Your task to perform on an android device: turn off notifications settings in the gmail app Image 0: 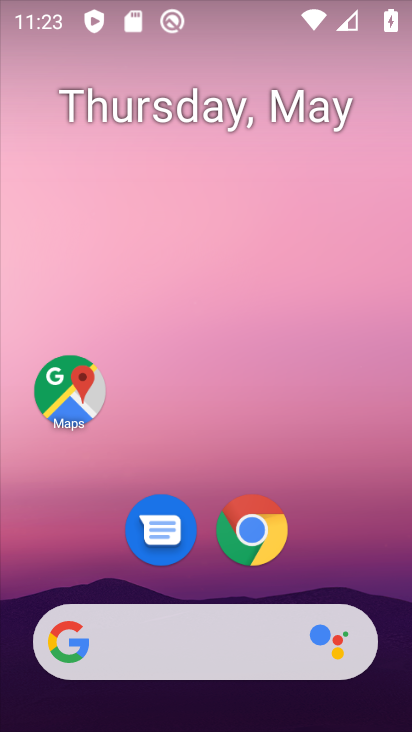
Step 0: drag from (214, 569) to (240, 42)
Your task to perform on an android device: turn off notifications settings in the gmail app Image 1: 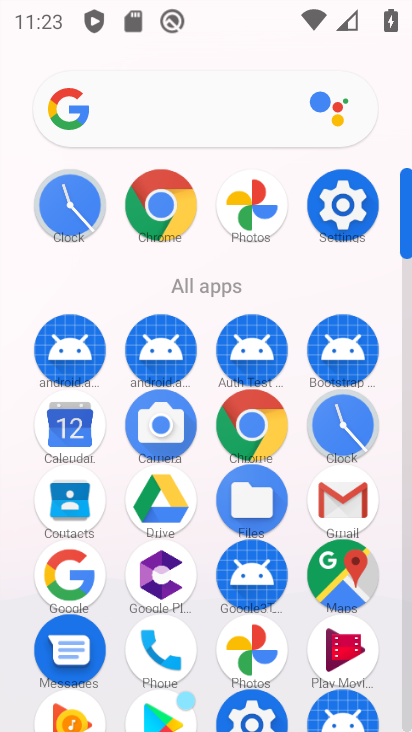
Step 1: click (323, 500)
Your task to perform on an android device: turn off notifications settings in the gmail app Image 2: 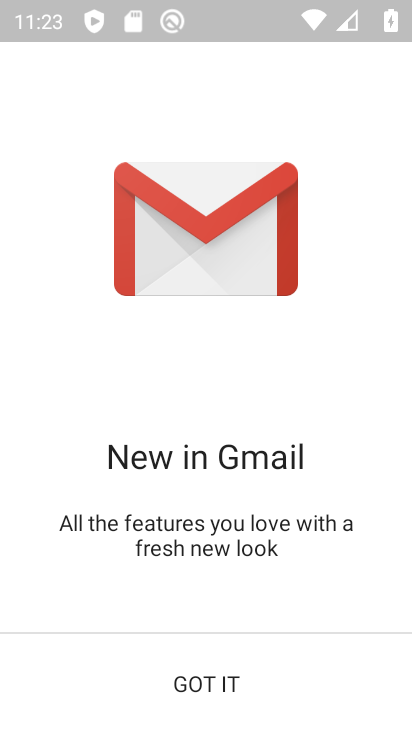
Step 2: click (152, 681)
Your task to perform on an android device: turn off notifications settings in the gmail app Image 3: 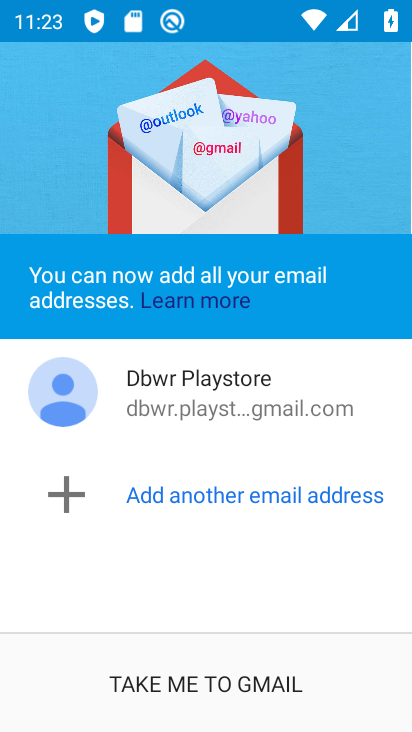
Step 3: click (148, 678)
Your task to perform on an android device: turn off notifications settings in the gmail app Image 4: 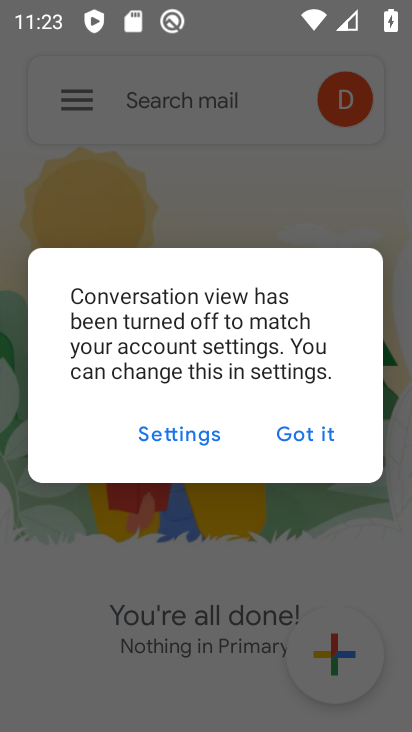
Step 4: click (279, 435)
Your task to perform on an android device: turn off notifications settings in the gmail app Image 5: 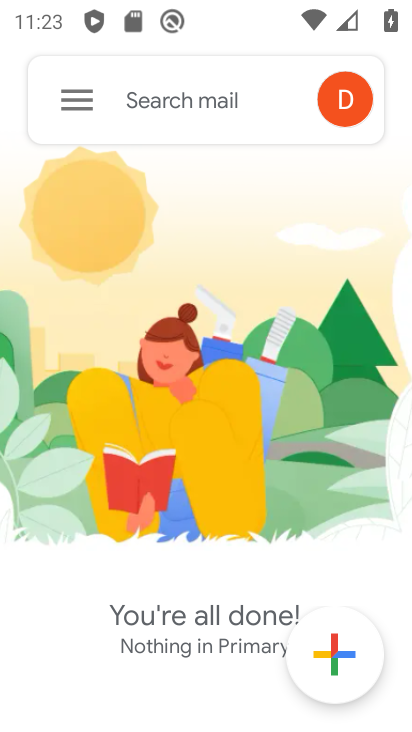
Step 5: click (65, 85)
Your task to perform on an android device: turn off notifications settings in the gmail app Image 6: 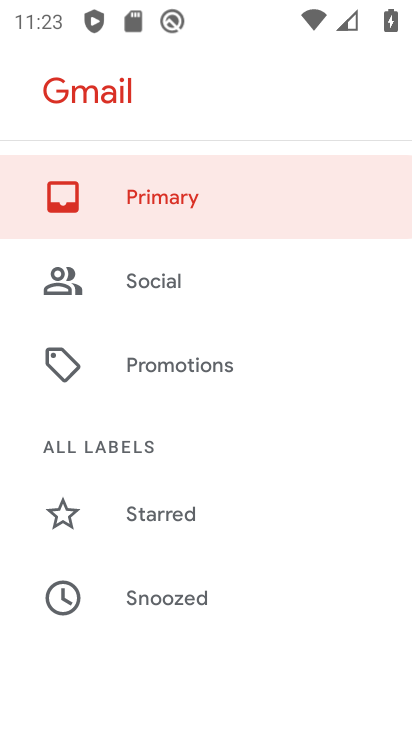
Step 6: drag from (185, 592) to (254, 154)
Your task to perform on an android device: turn off notifications settings in the gmail app Image 7: 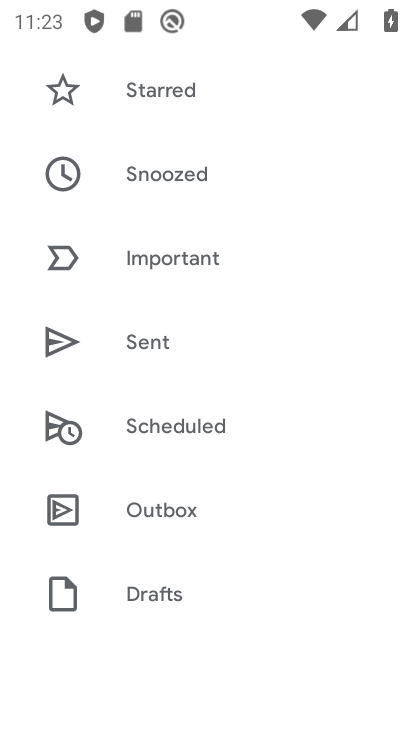
Step 7: drag from (165, 545) to (211, 140)
Your task to perform on an android device: turn off notifications settings in the gmail app Image 8: 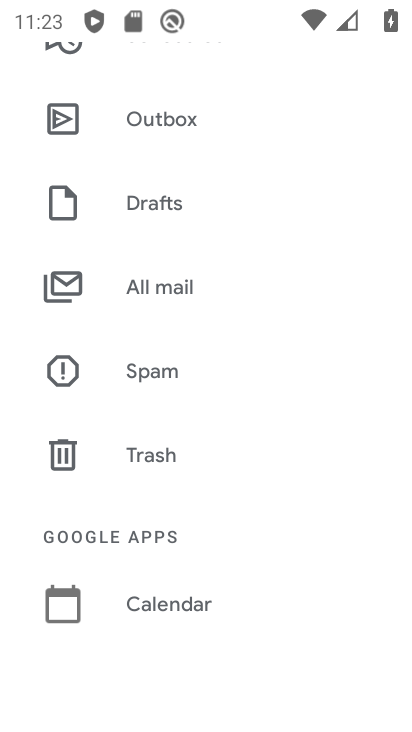
Step 8: drag from (210, 536) to (220, 224)
Your task to perform on an android device: turn off notifications settings in the gmail app Image 9: 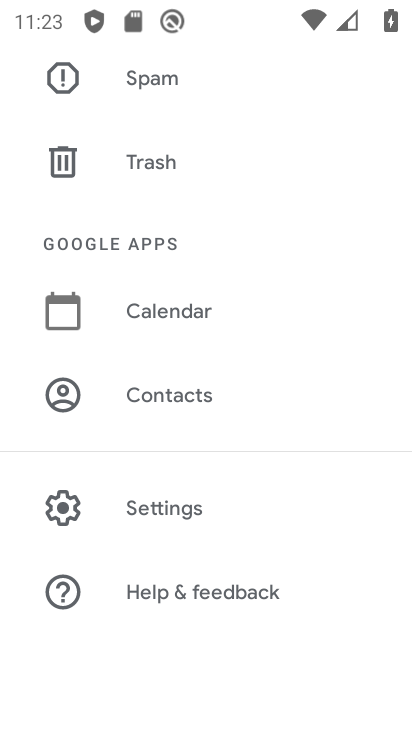
Step 9: click (191, 496)
Your task to perform on an android device: turn off notifications settings in the gmail app Image 10: 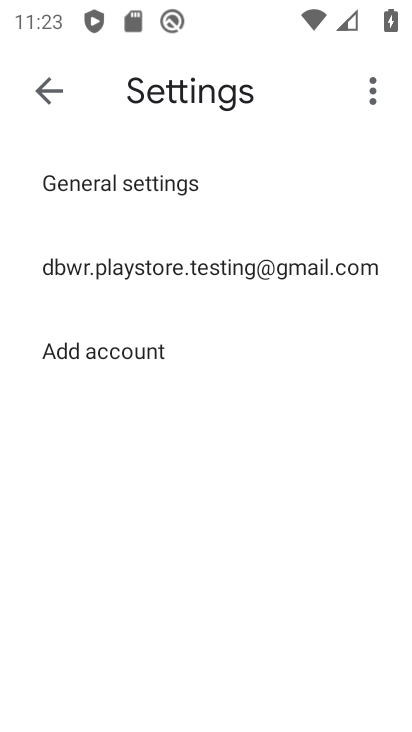
Step 10: click (242, 275)
Your task to perform on an android device: turn off notifications settings in the gmail app Image 11: 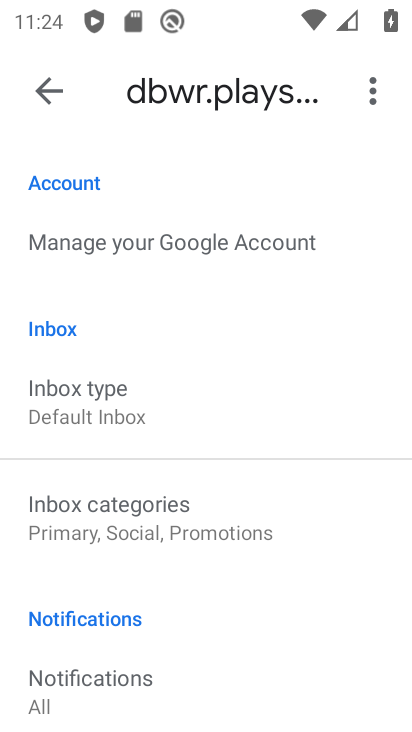
Step 11: drag from (112, 638) to (181, 100)
Your task to perform on an android device: turn off notifications settings in the gmail app Image 12: 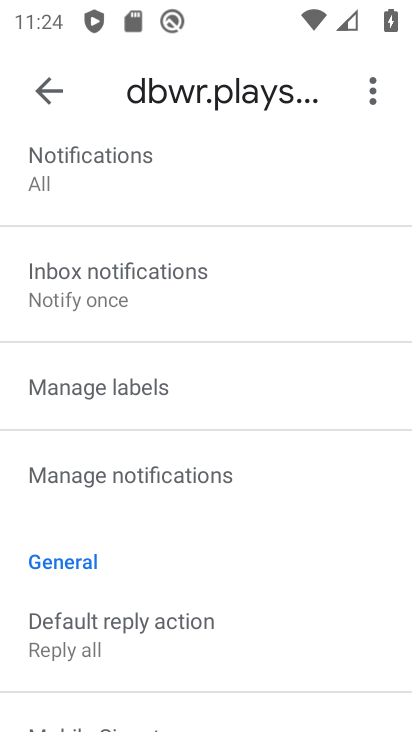
Step 12: click (204, 468)
Your task to perform on an android device: turn off notifications settings in the gmail app Image 13: 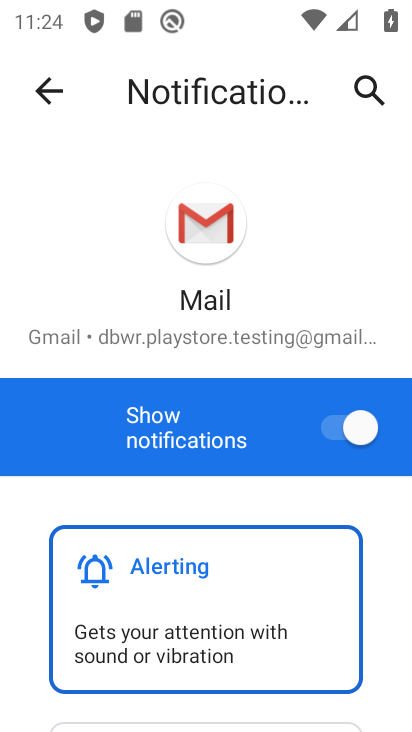
Step 13: click (348, 433)
Your task to perform on an android device: turn off notifications settings in the gmail app Image 14: 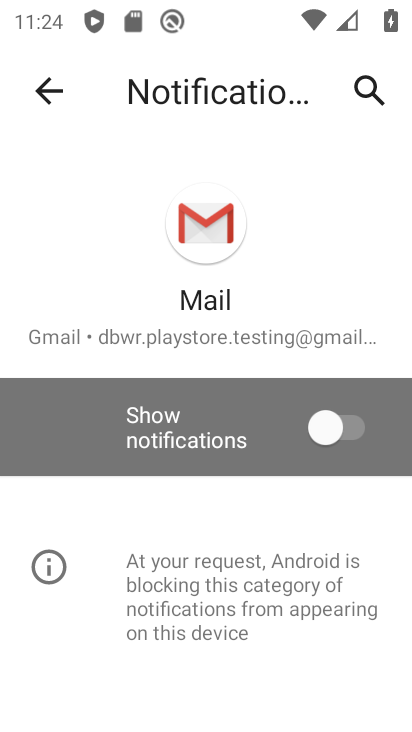
Step 14: task complete